Your task to perform on an android device: turn off priority inbox in the gmail app Image 0: 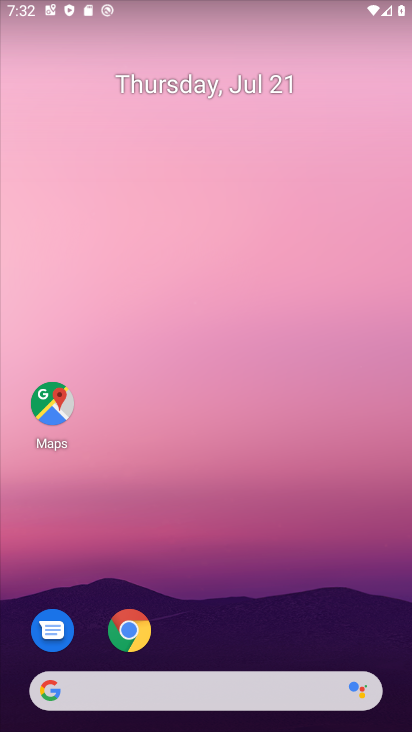
Step 0: drag from (174, 728) to (120, 16)
Your task to perform on an android device: turn off priority inbox in the gmail app Image 1: 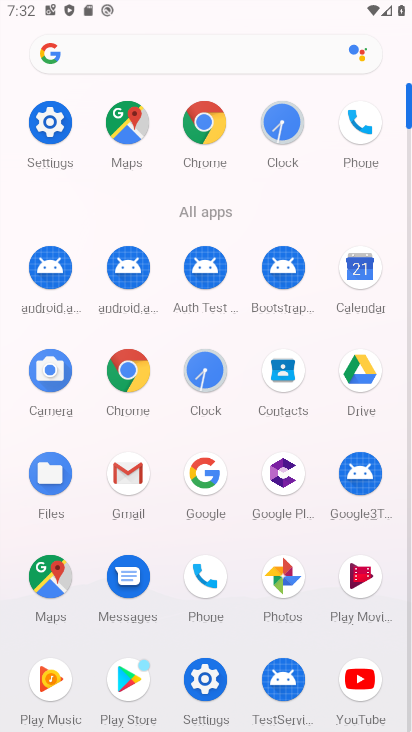
Step 1: click (137, 468)
Your task to perform on an android device: turn off priority inbox in the gmail app Image 2: 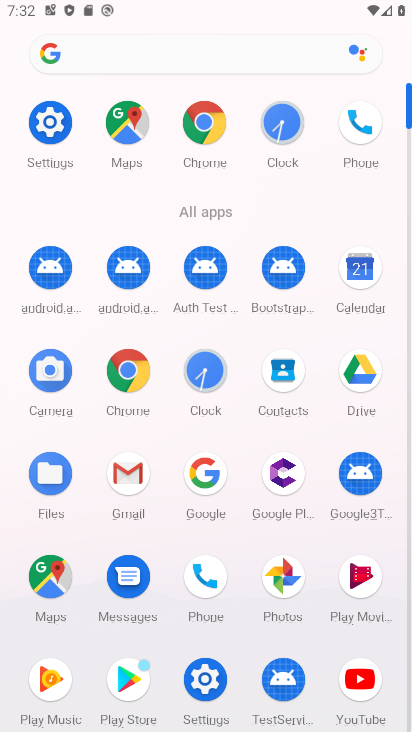
Step 2: click (137, 468)
Your task to perform on an android device: turn off priority inbox in the gmail app Image 3: 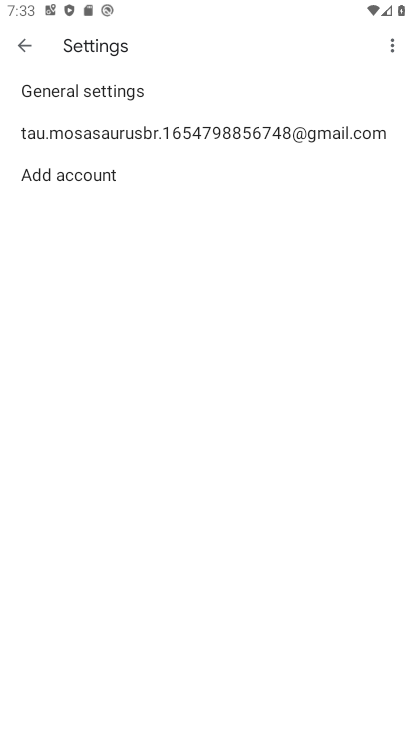
Step 3: click (230, 125)
Your task to perform on an android device: turn off priority inbox in the gmail app Image 4: 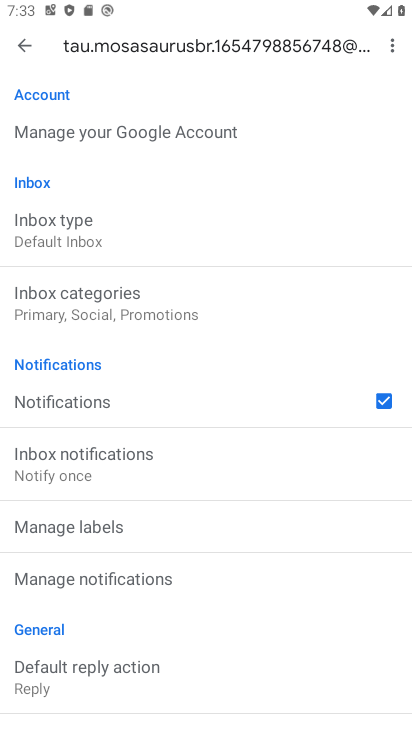
Step 4: click (73, 236)
Your task to perform on an android device: turn off priority inbox in the gmail app Image 5: 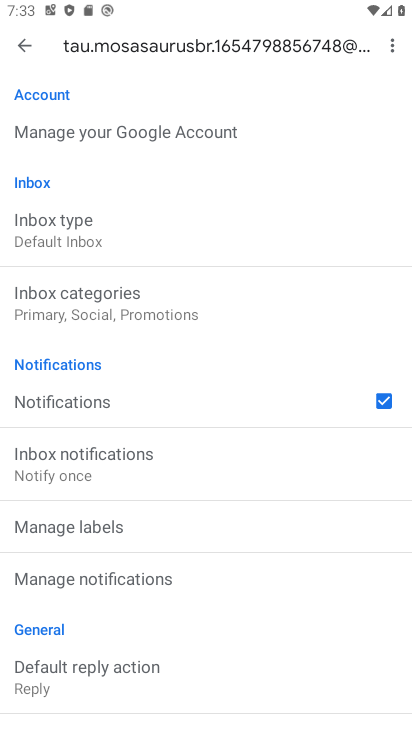
Step 5: click (73, 236)
Your task to perform on an android device: turn off priority inbox in the gmail app Image 6: 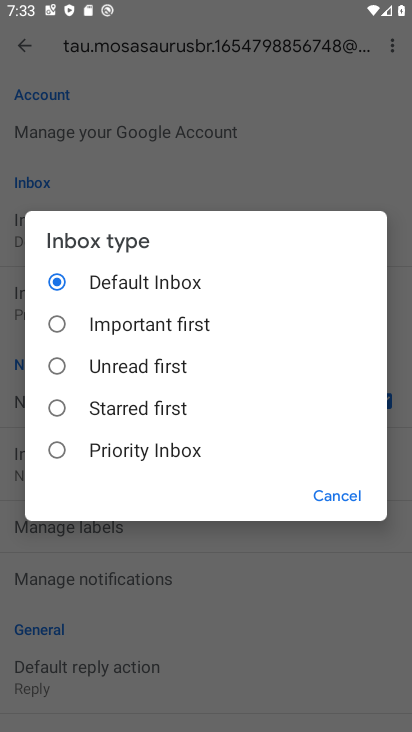
Step 6: task complete